Your task to perform on an android device: delete location history Image 0: 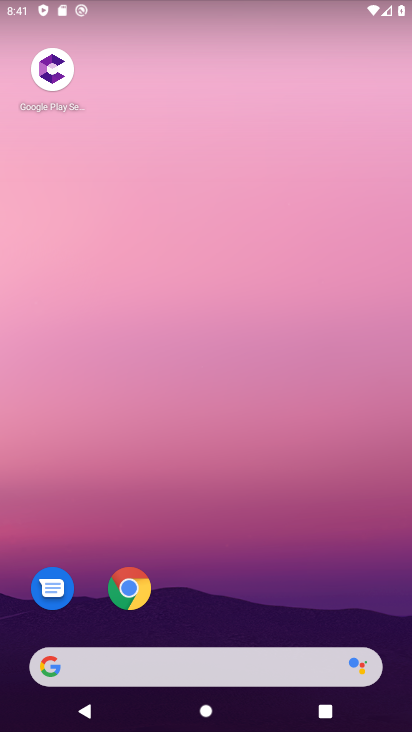
Step 0: drag from (295, 595) to (292, 81)
Your task to perform on an android device: delete location history Image 1: 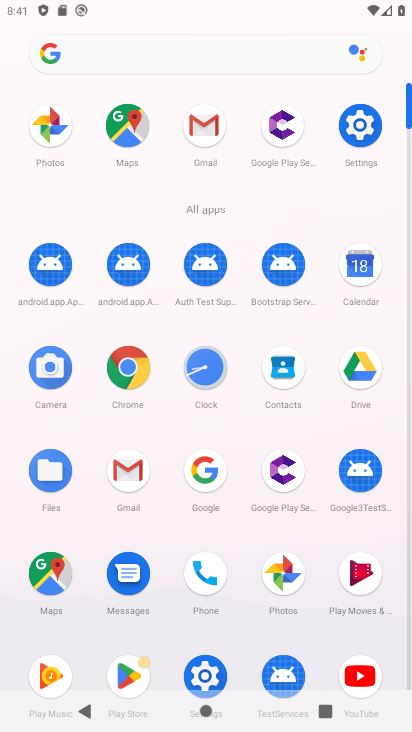
Step 1: click (130, 113)
Your task to perform on an android device: delete location history Image 2: 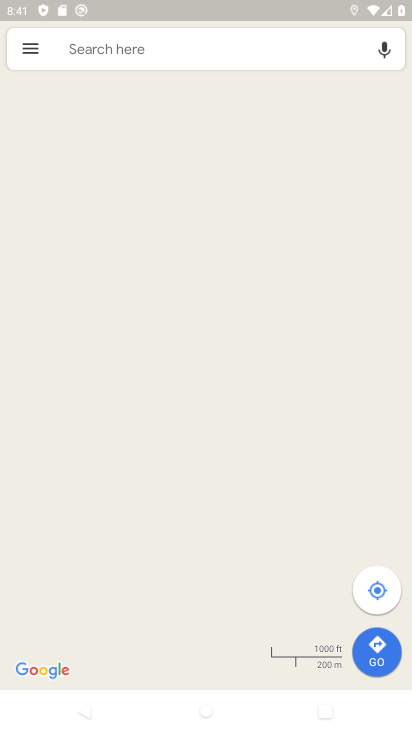
Step 2: click (33, 50)
Your task to perform on an android device: delete location history Image 3: 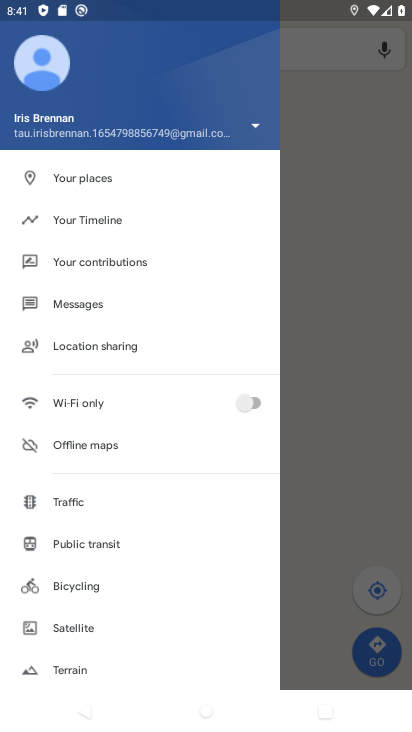
Step 3: click (50, 219)
Your task to perform on an android device: delete location history Image 4: 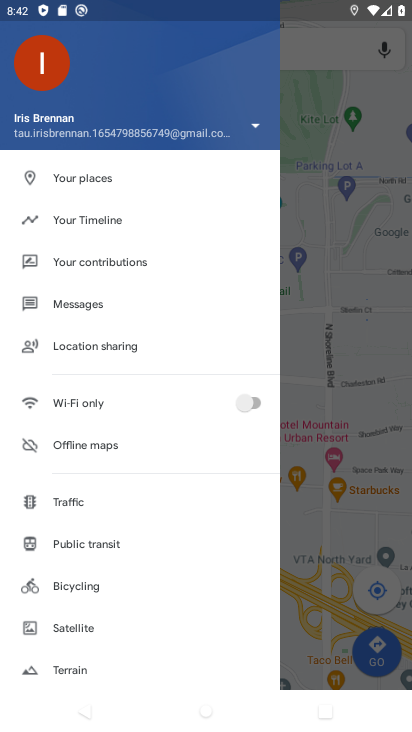
Step 4: click (90, 226)
Your task to perform on an android device: delete location history Image 5: 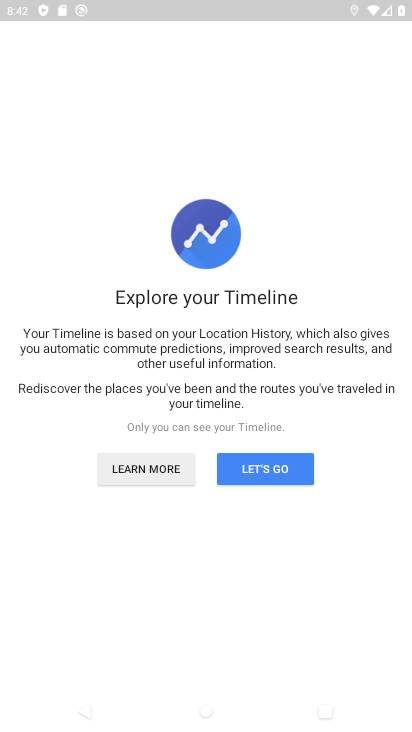
Step 5: click (246, 467)
Your task to perform on an android device: delete location history Image 6: 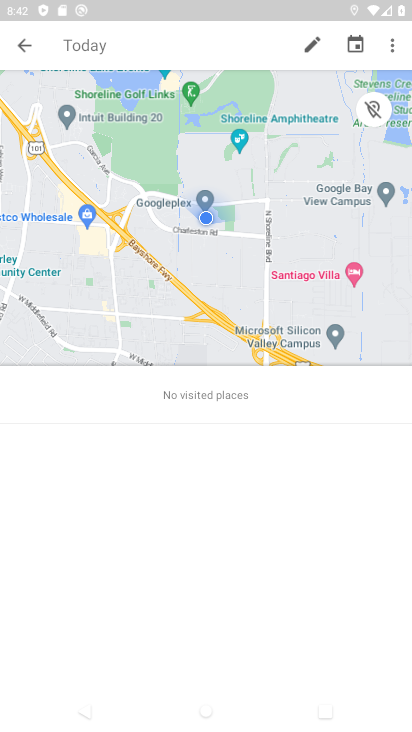
Step 6: click (386, 46)
Your task to perform on an android device: delete location history Image 7: 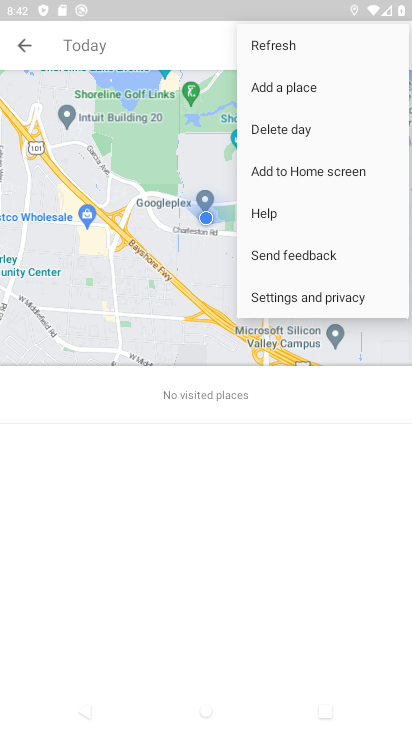
Step 7: click (305, 289)
Your task to perform on an android device: delete location history Image 8: 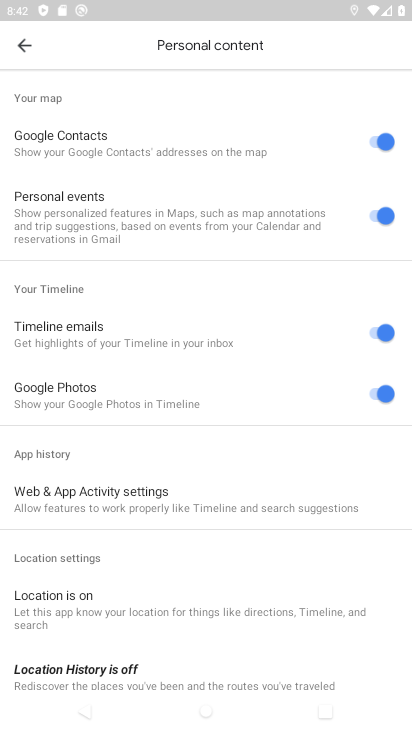
Step 8: drag from (162, 610) to (162, 252)
Your task to perform on an android device: delete location history Image 9: 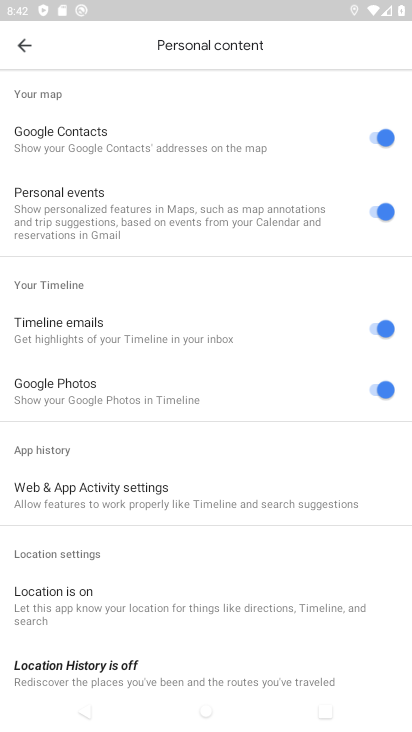
Step 9: drag from (137, 629) to (111, 478)
Your task to perform on an android device: delete location history Image 10: 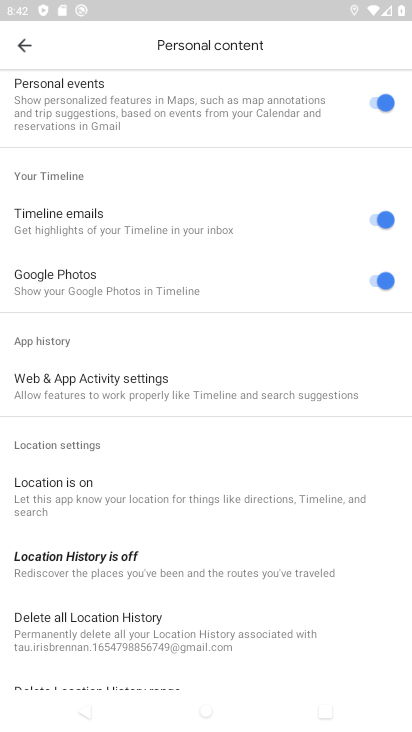
Step 10: click (96, 631)
Your task to perform on an android device: delete location history Image 11: 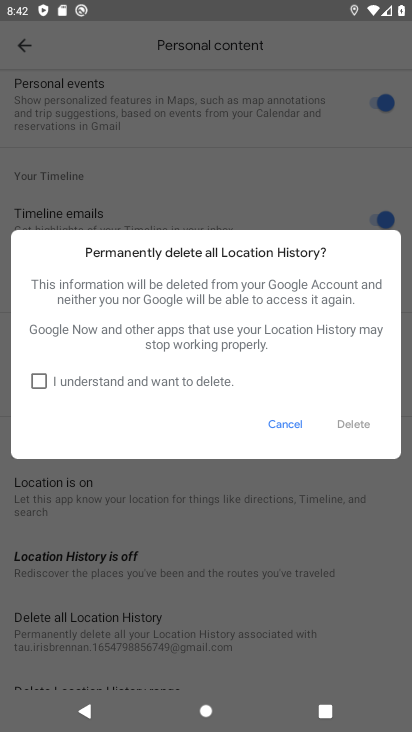
Step 11: click (39, 389)
Your task to perform on an android device: delete location history Image 12: 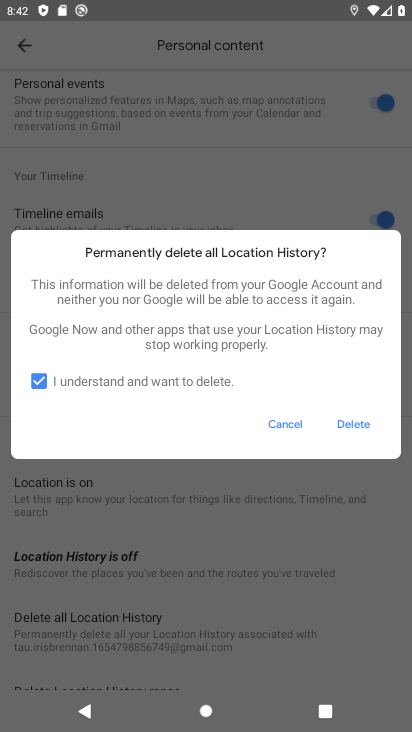
Step 12: click (350, 424)
Your task to perform on an android device: delete location history Image 13: 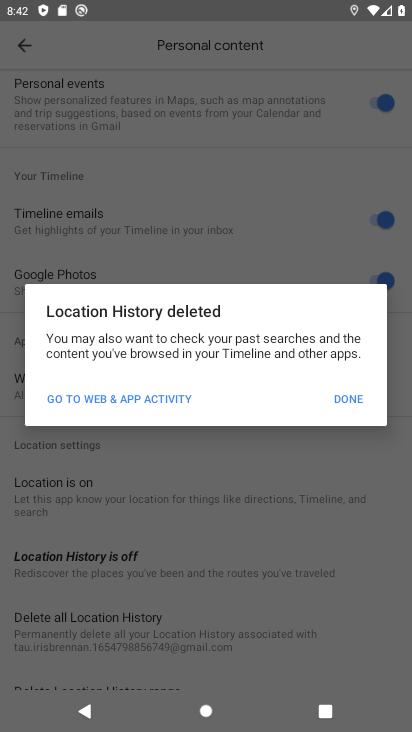
Step 13: task complete